Your task to perform on an android device: turn on javascript in the chrome app Image 0: 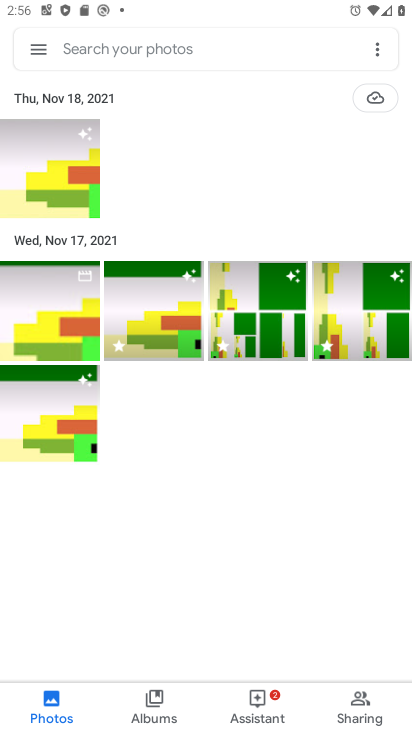
Step 0: press home button
Your task to perform on an android device: turn on javascript in the chrome app Image 1: 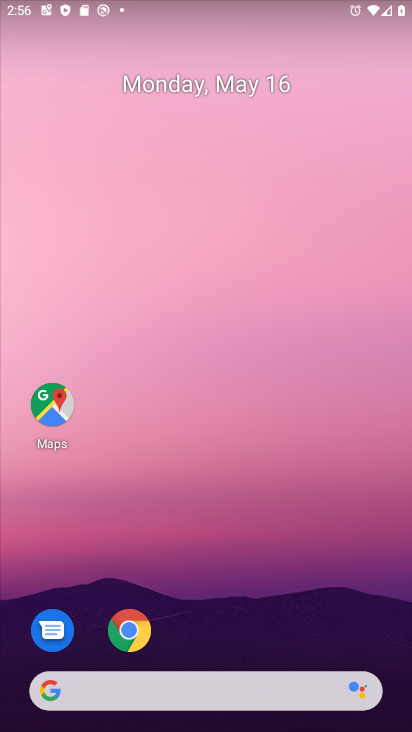
Step 1: click (128, 628)
Your task to perform on an android device: turn on javascript in the chrome app Image 2: 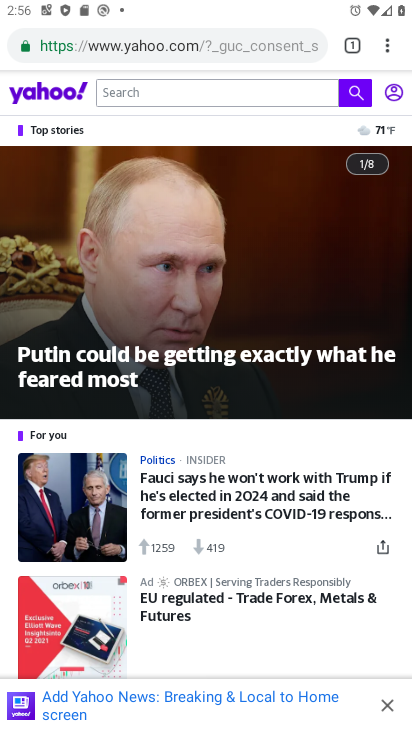
Step 2: click (387, 45)
Your task to perform on an android device: turn on javascript in the chrome app Image 3: 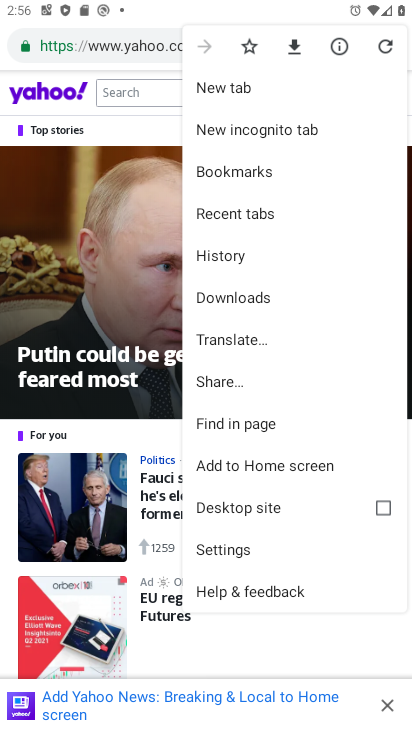
Step 3: click (261, 545)
Your task to perform on an android device: turn on javascript in the chrome app Image 4: 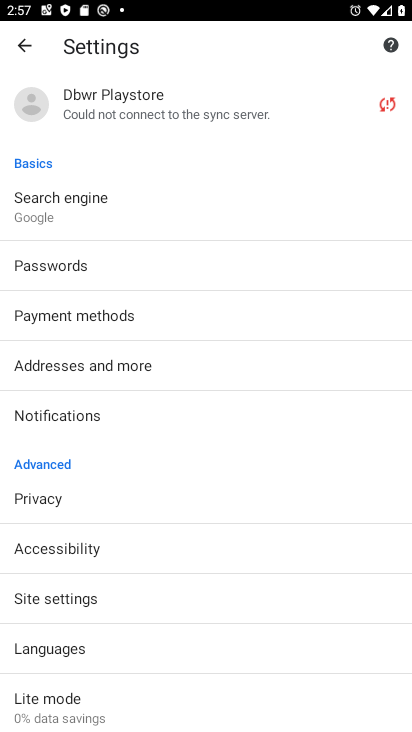
Step 4: click (107, 597)
Your task to perform on an android device: turn on javascript in the chrome app Image 5: 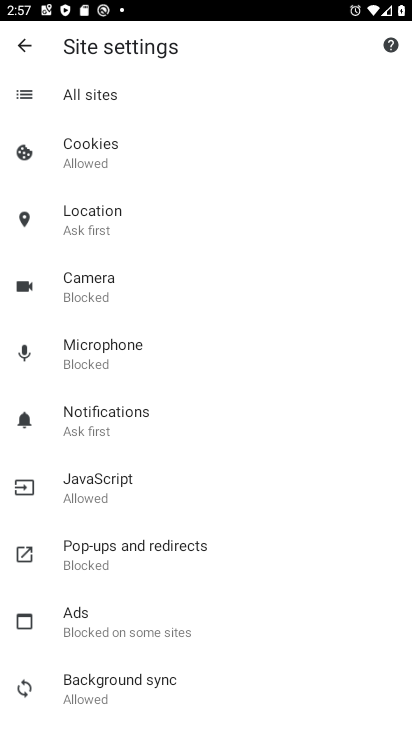
Step 5: click (125, 491)
Your task to perform on an android device: turn on javascript in the chrome app Image 6: 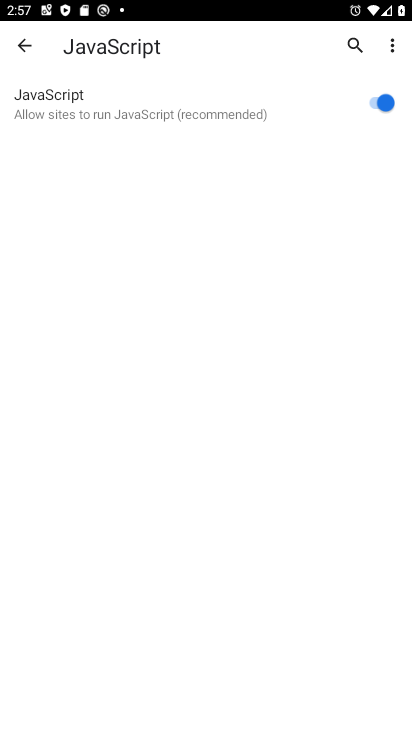
Step 6: task complete